Your task to perform on an android device: Open Google Chrome Image 0: 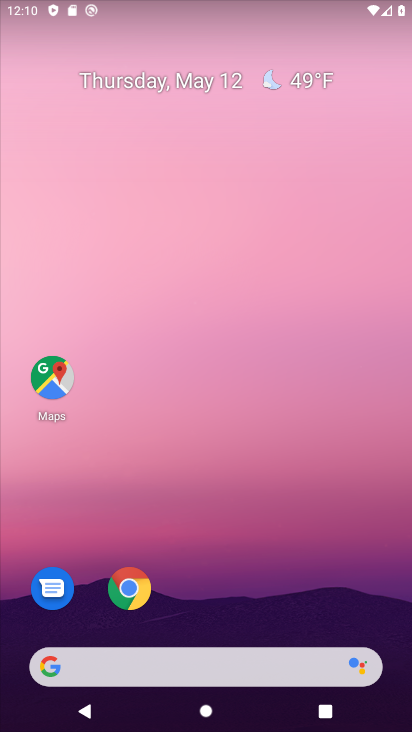
Step 0: drag from (310, 575) to (158, 19)
Your task to perform on an android device: Open Google Chrome Image 1: 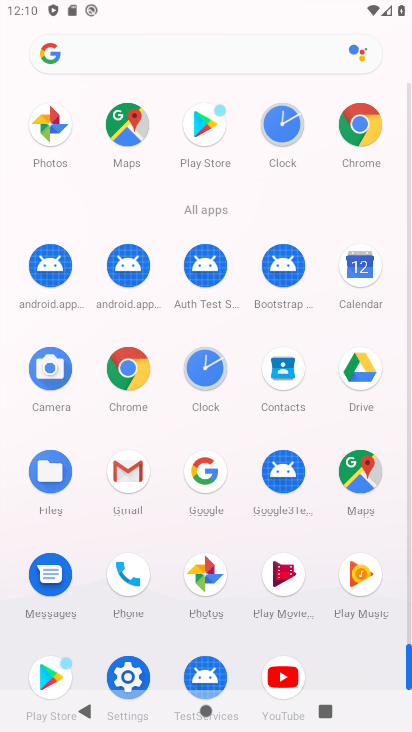
Step 1: click (360, 130)
Your task to perform on an android device: Open Google Chrome Image 2: 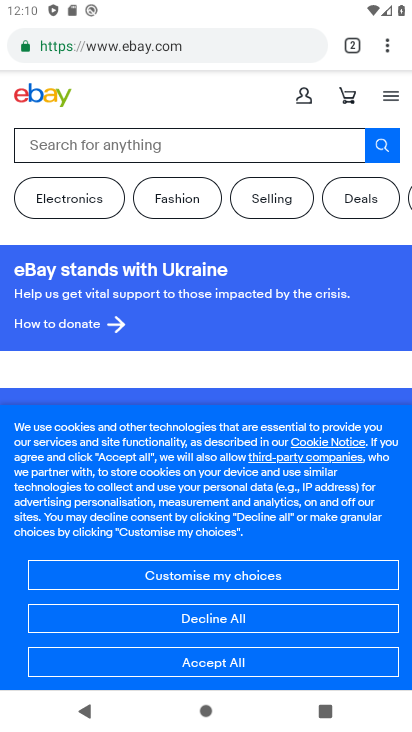
Step 2: drag from (387, 41) to (215, 82)
Your task to perform on an android device: Open Google Chrome Image 3: 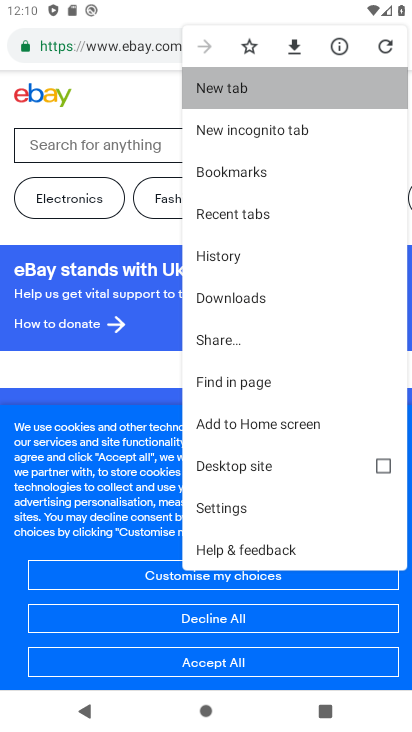
Step 3: click (209, 80)
Your task to perform on an android device: Open Google Chrome Image 4: 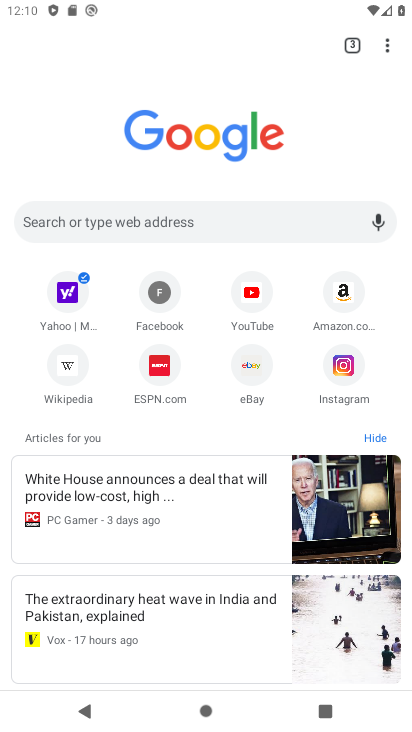
Step 4: task complete